Your task to perform on an android device: Go to Wikipedia Image 0: 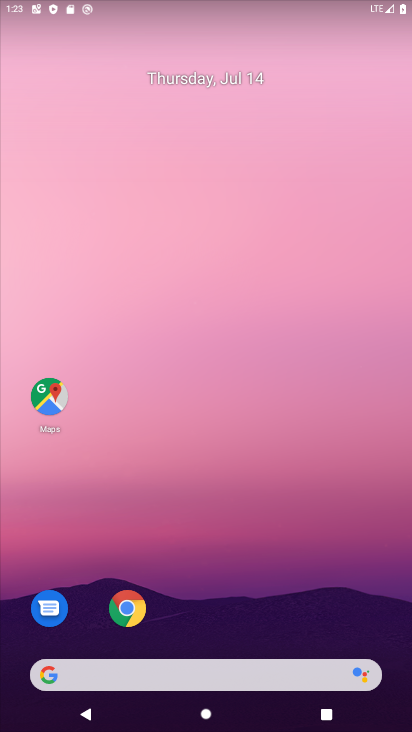
Step 0: click (138, 617)
Your task to perform on an android device: Go to Wikipedia Image 1: 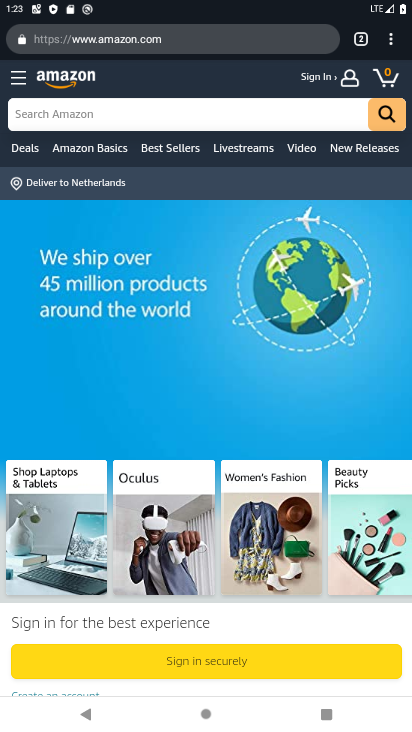
Step 1: click (365, 43)
Your task to perform on an android device: Go to Wikipedia Image 2: 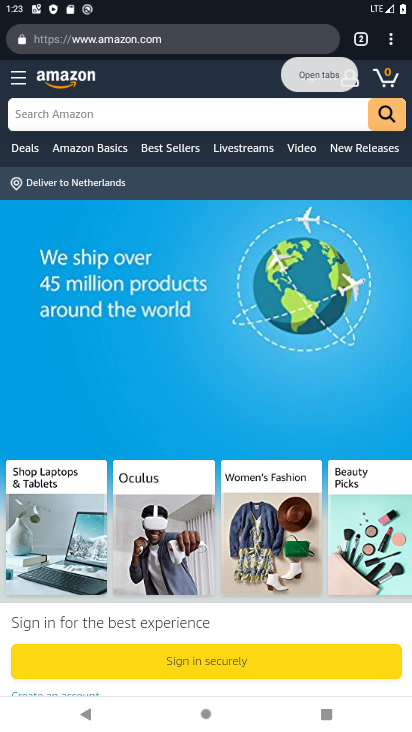
Step 2: click (359, 38)
Your task to perform on an android device: Go to Wikipedia Image 3: 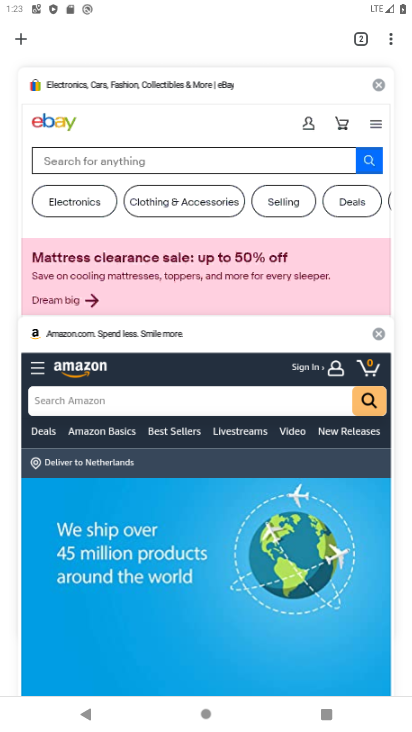
Step 3: click (382, 85)
Your task to perform on an android device: Go to Wikipedia Image 4: 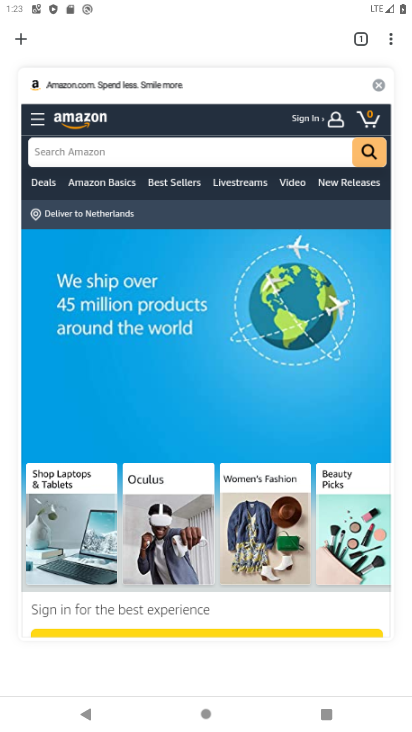
Step 4: click (382, 85)
Your task to perform on an android device: Go to Wikipedia Image 5: 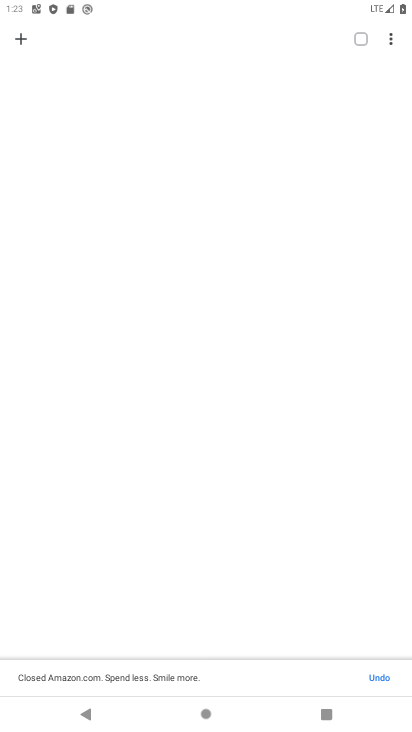
Step 5: click (16, 42)
Your task to perform on an android device: Go to Wikipedia Image 6: 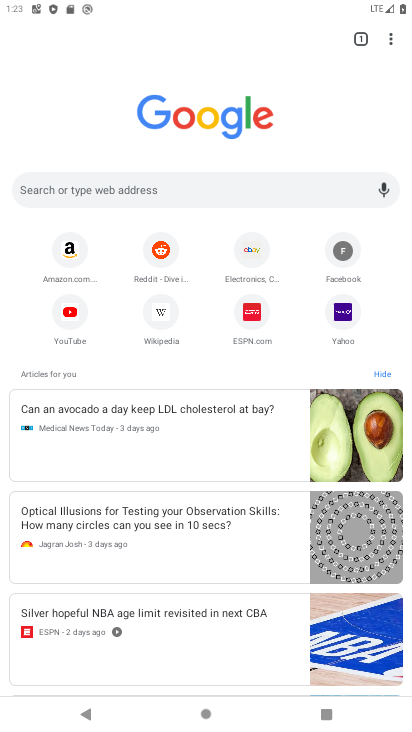
Step 6: click (173, 310)
Your task to perform on an android device: Go to Wikipedia Image 7: 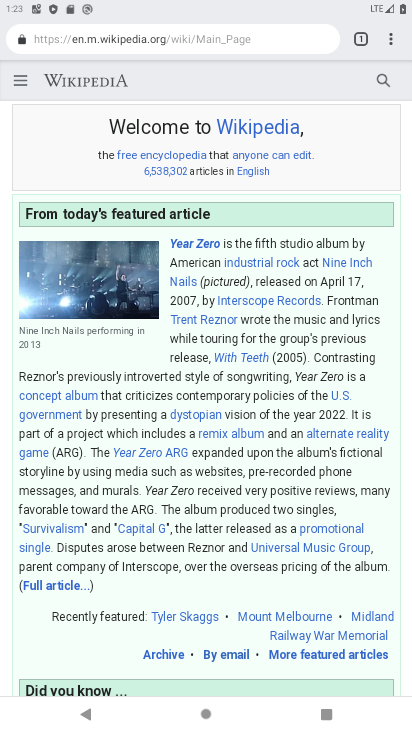
Step 7: task complete